Your task to perform on an android device: When is my next meeting? Image 0: 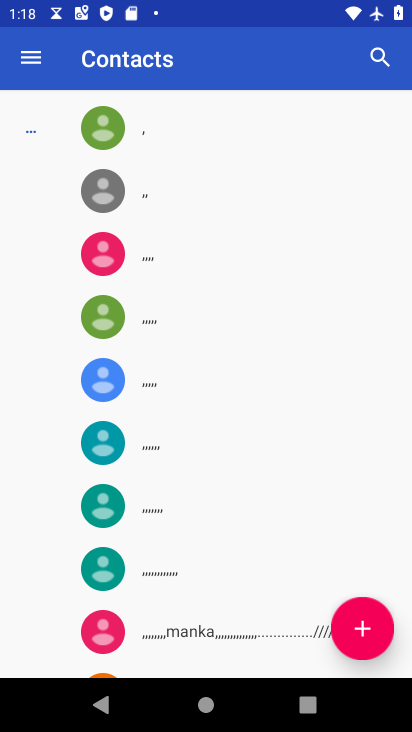
Step 0: press home button
Your task to perform on an android device: When is my next meeting? Image 1: 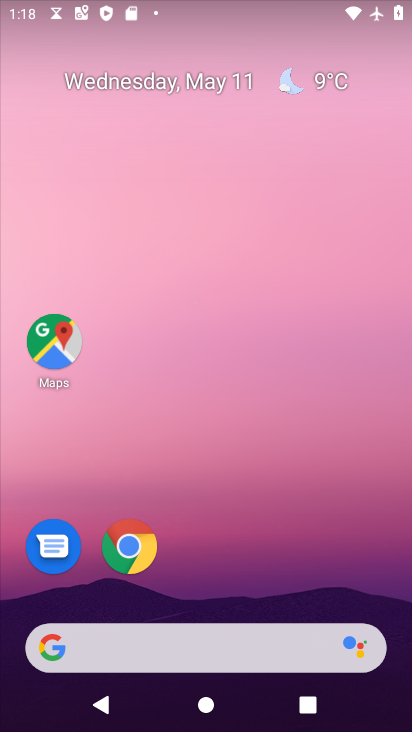
Step 1: drag from (274, 582) to (313, 4)
Your task to perform on an android device: When is my next meeting? Image 2: 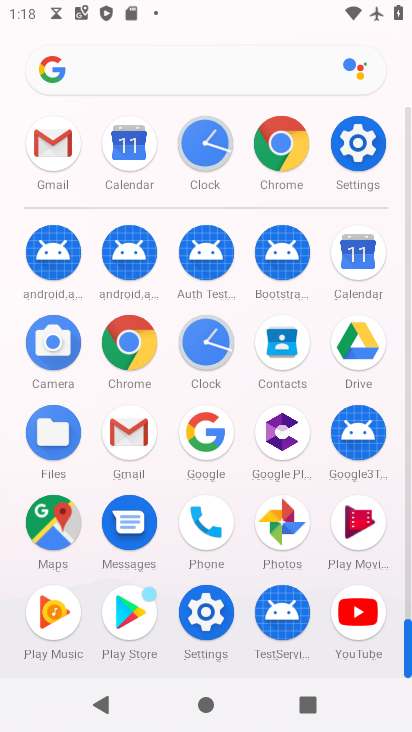
Step 2: click (350, 267)
Your task to perform on an android device: When is my next meeting? Image 3: 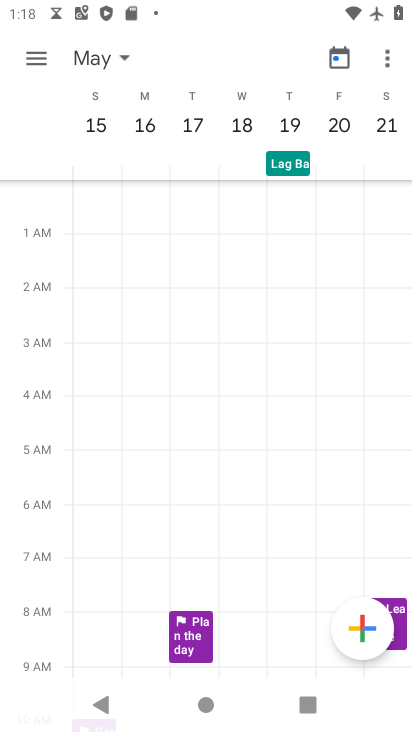
Step 3: click (121, 59)
Your task to perform on an android device: When is my next meeting? Image 4: 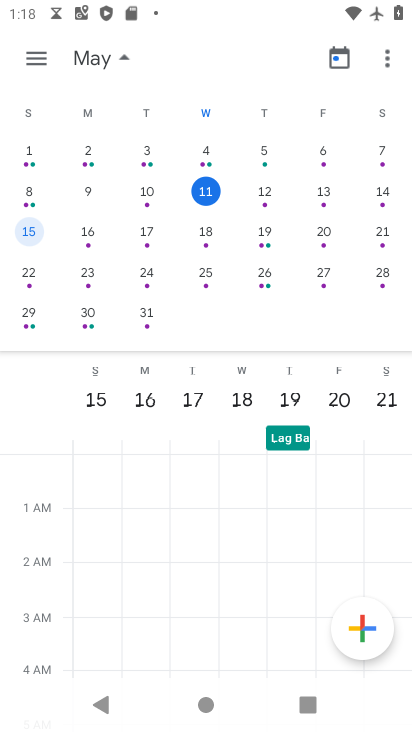
Step 4: click (212, 195)
Your task to perform on an android device: When is my next meeting? Image 5: 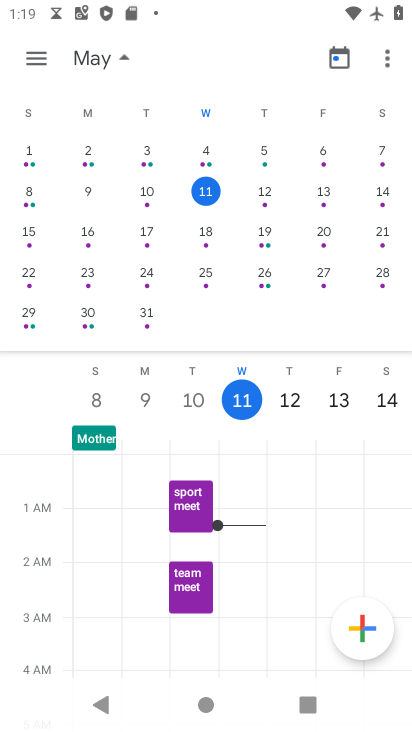
Step 5: task complete